Your task to perform on an android device: What's the price of the Galaxy phone? Image 0: 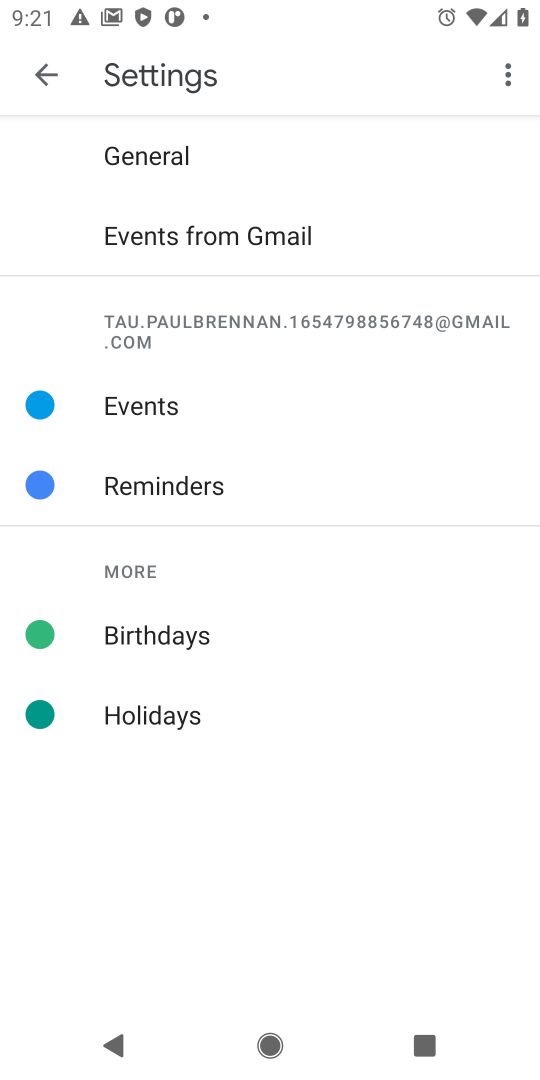
Step 0: press home button
Your task to perform on an android device: What's the price of the Galaxy phone? Image 1: 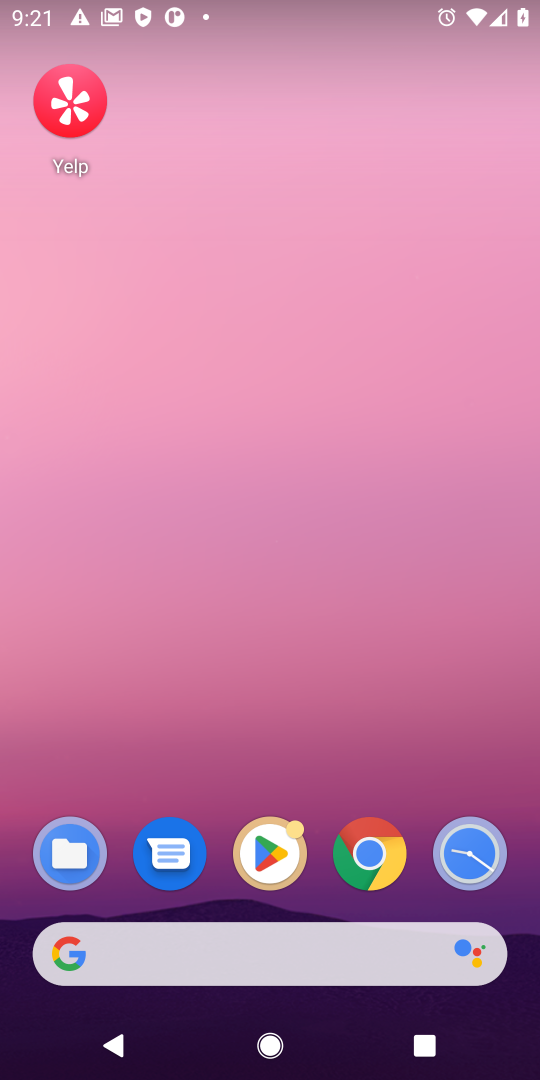
Step 1: click (340, 852)
Your task to perform on an android device: What's the price of the Galaxy phone? Image 2: 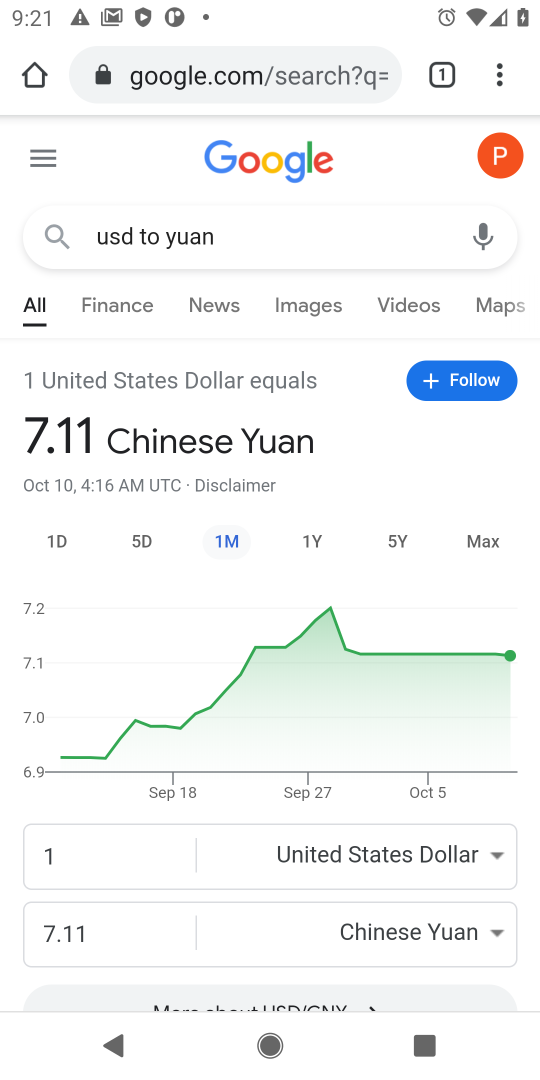
Step 2: click (239, 87)
Your task to perform on an android device: What's the price of the Galaxy phone? Image 3: 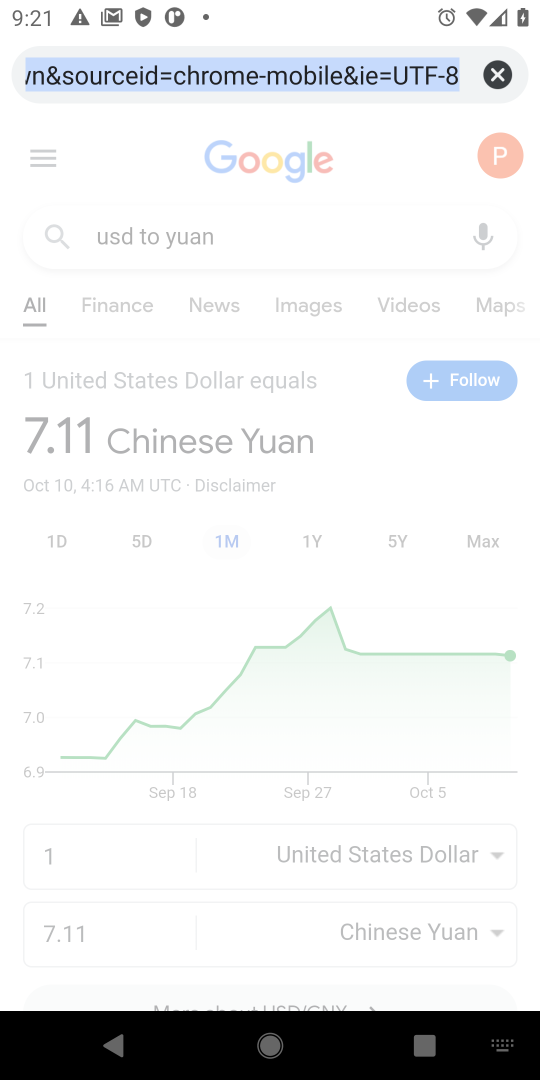
Step 3: type "price of galaxy phone"
Your task to perform on an android device: What's the price of the Galaxy phone? Image 4: 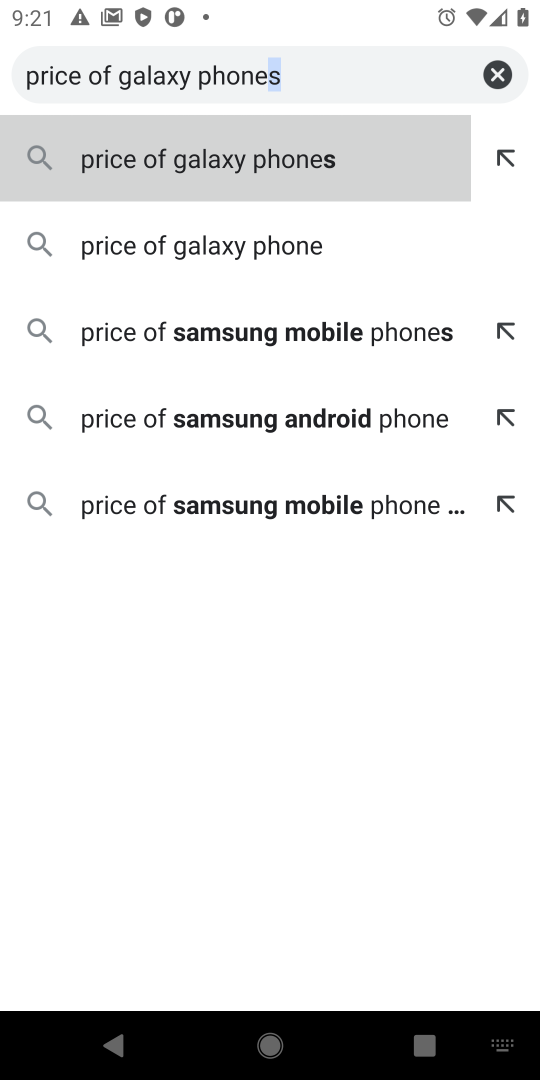
Step 4: click (370, 240)
Your task to perform on an android device: What's the price of the Galaxy phone? Image 5: 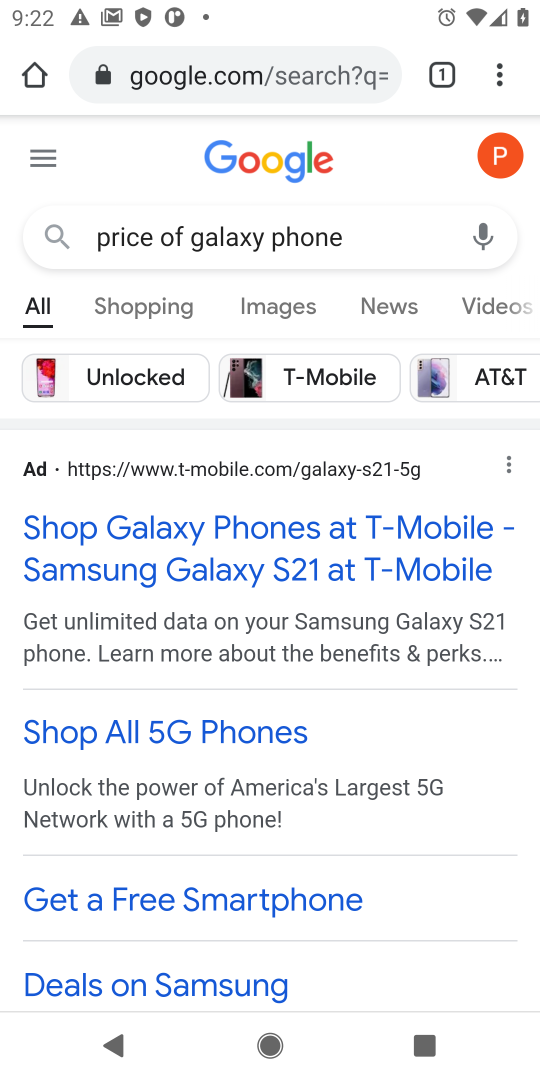
Step 5: task complete